Your task to perform on an android device: turn off location history Image 0: 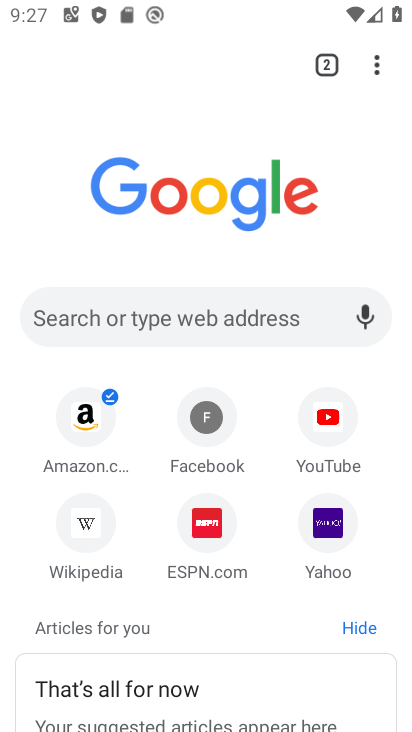
Step 0: press home button
Your task to perform on an android device: turn off location history Image 1: 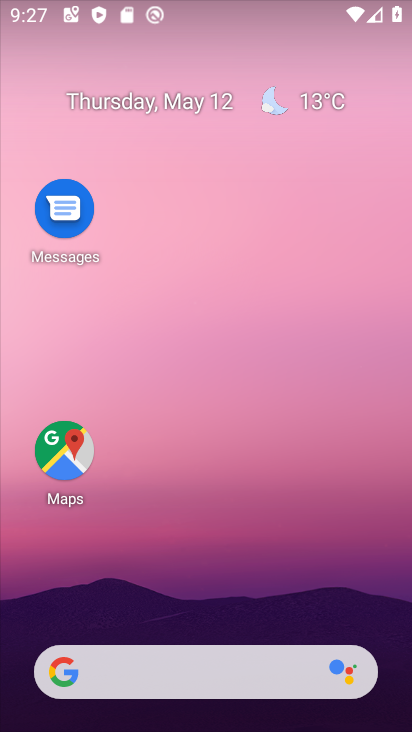
Step 1: drag from (216, 636) to (167, 10)
Your task to perform on an android device: turn off location history Image 2: 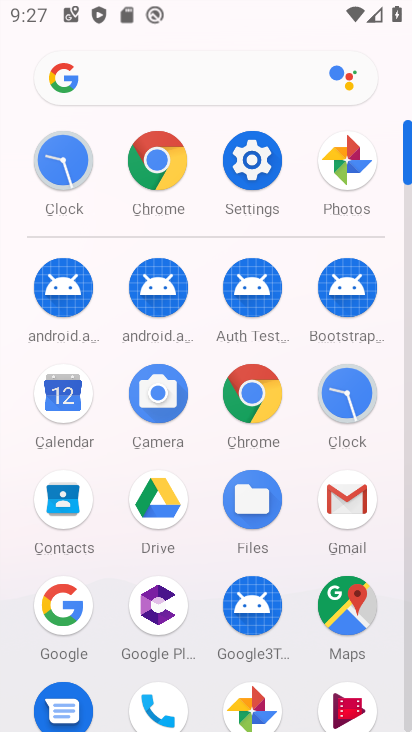
Step 2: click (240, 162)
Your task to perform on an android device: turn off location history Image 3: 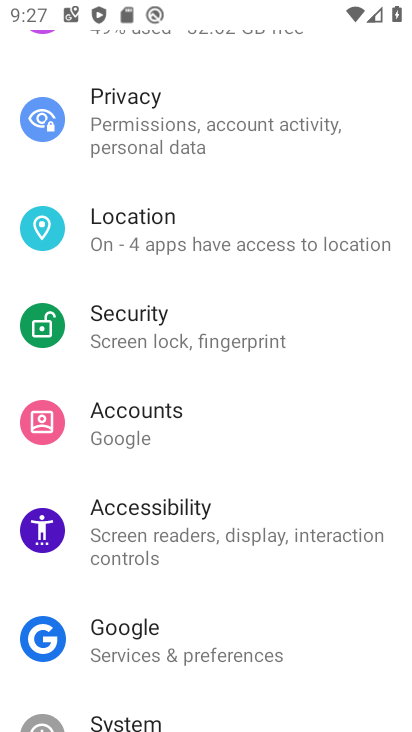
Step 3: click (134, 235)
Your task to perform on an android device: turn off location history Image 4: 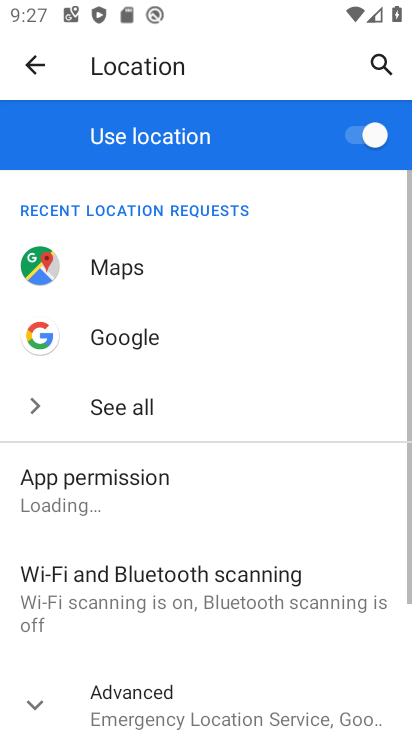
Step 4: drag from (134, 586) to (140, 204)
Your task to perform on an android device: turn off location history Image 5: 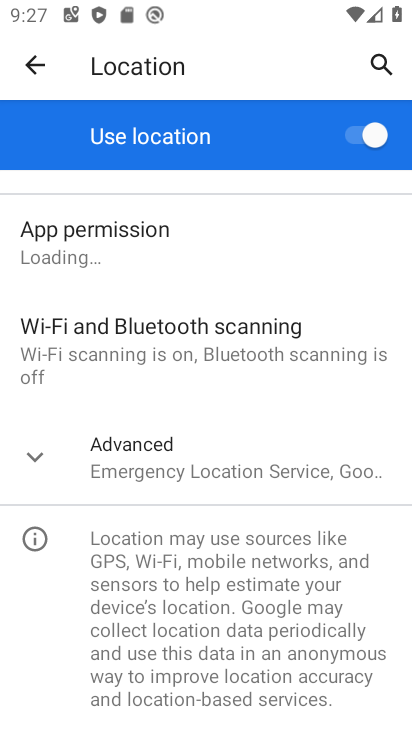
Step 5: click (149, 448)
Your task to perform on an android device: turn off location history Image 6: 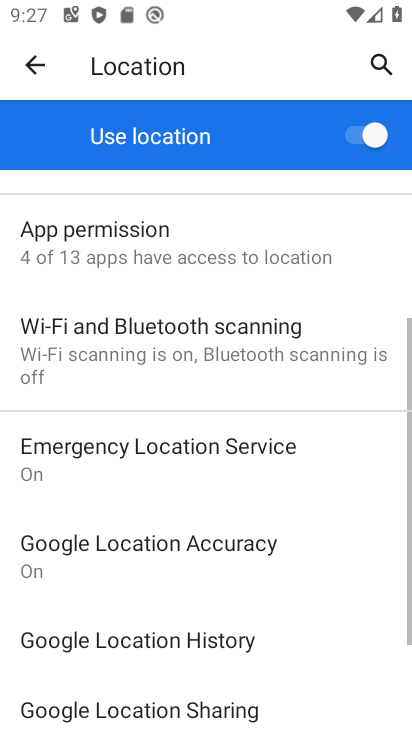
Step 6: click (166, 613)
Your task to perform on an android device: turn off location history Image 7: 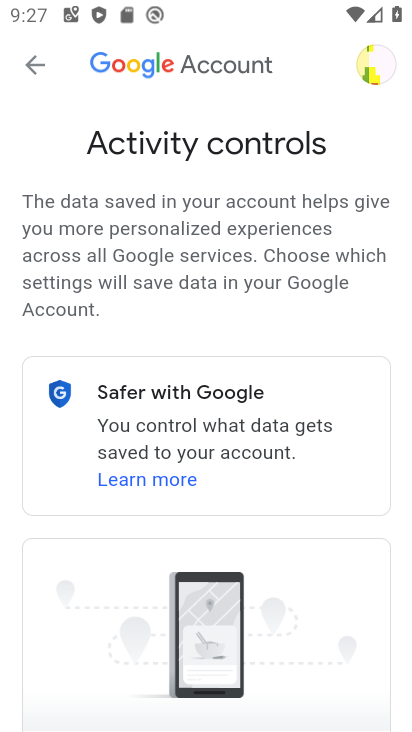
Step 7: task complete